Your task to perform on an android device: Open CNN.com Image 0: 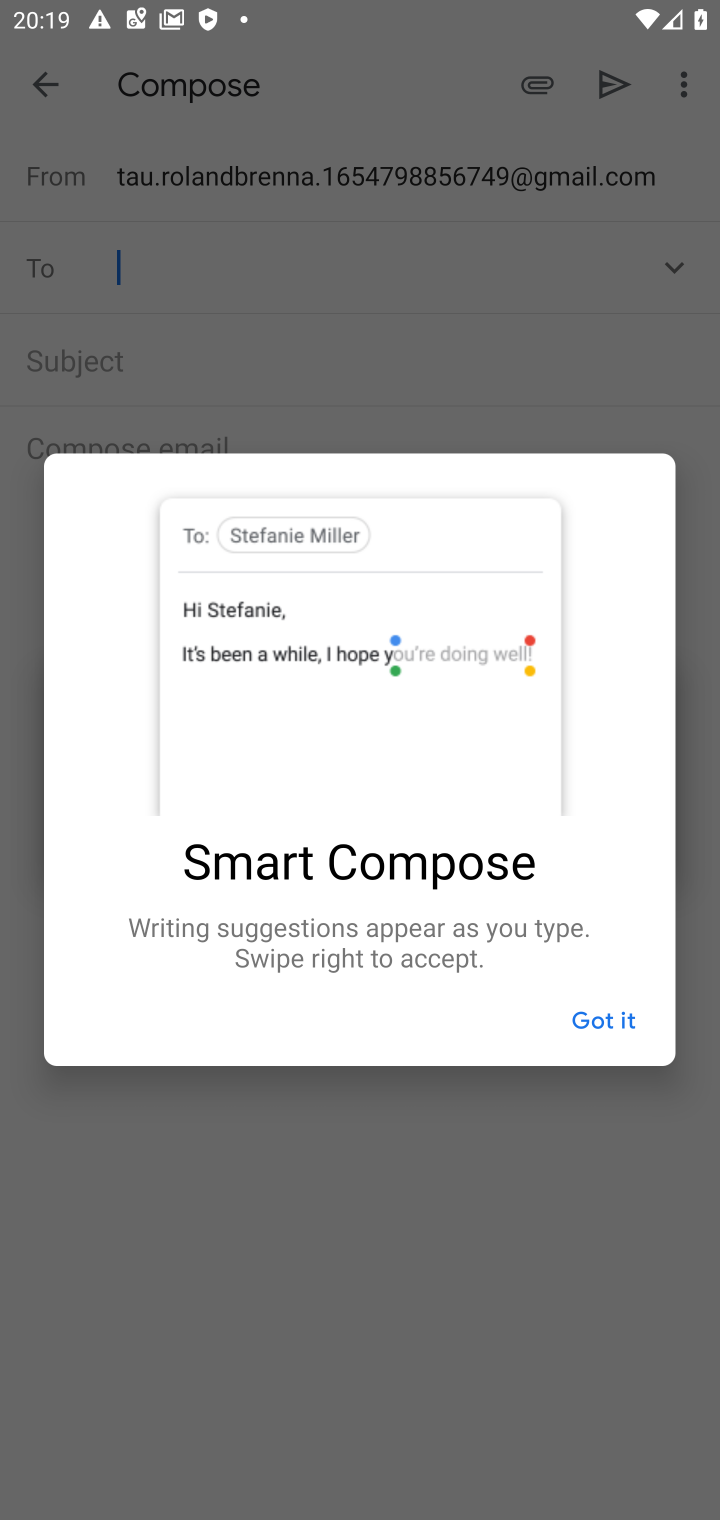
Step 0: press home button
Your task to perform on an android device: Open CNN.com Image 1: 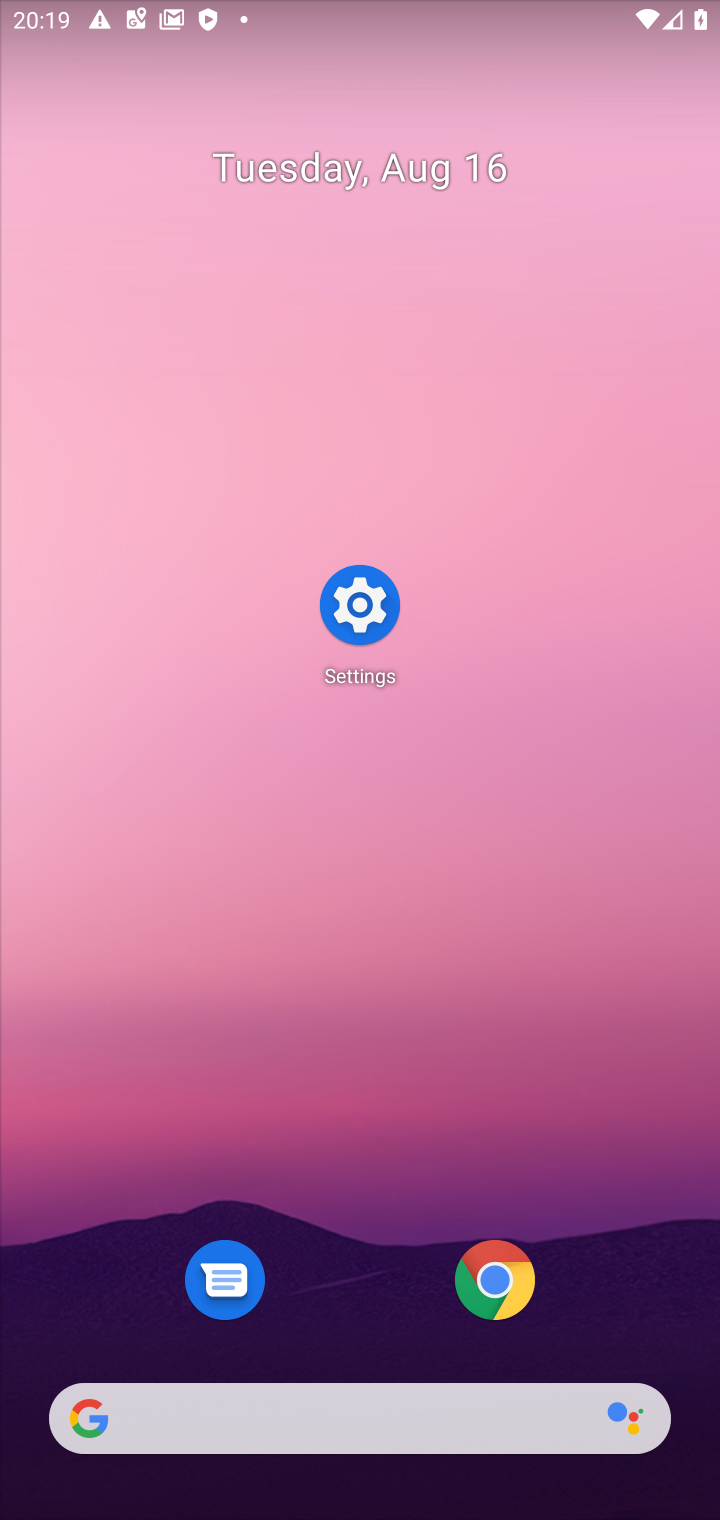
Step 1: click (504, 1287)
Your task to perform on an android device: Open CNN.com Image 2: 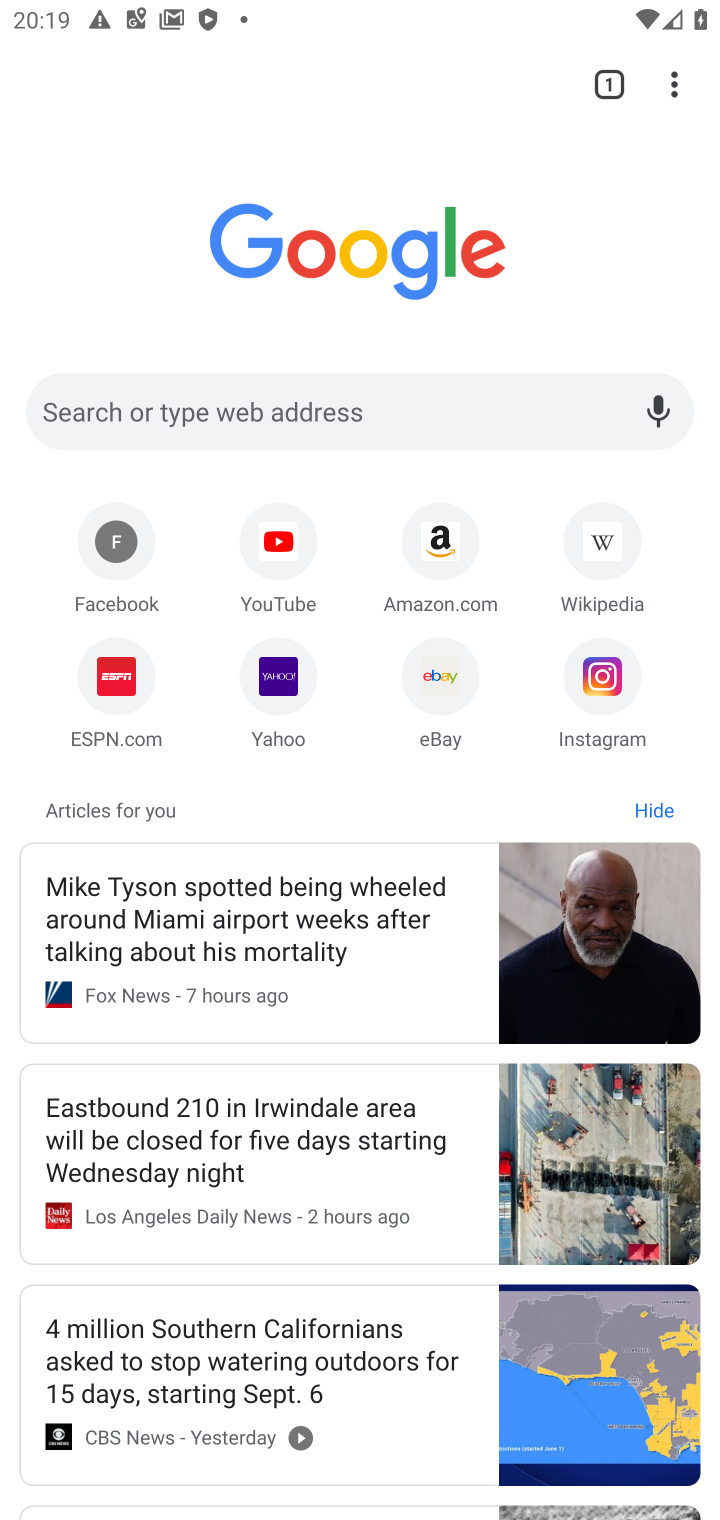
Step 2: click (371, 392)
Your task to perform on an android device: Open CNN.com Image 3: 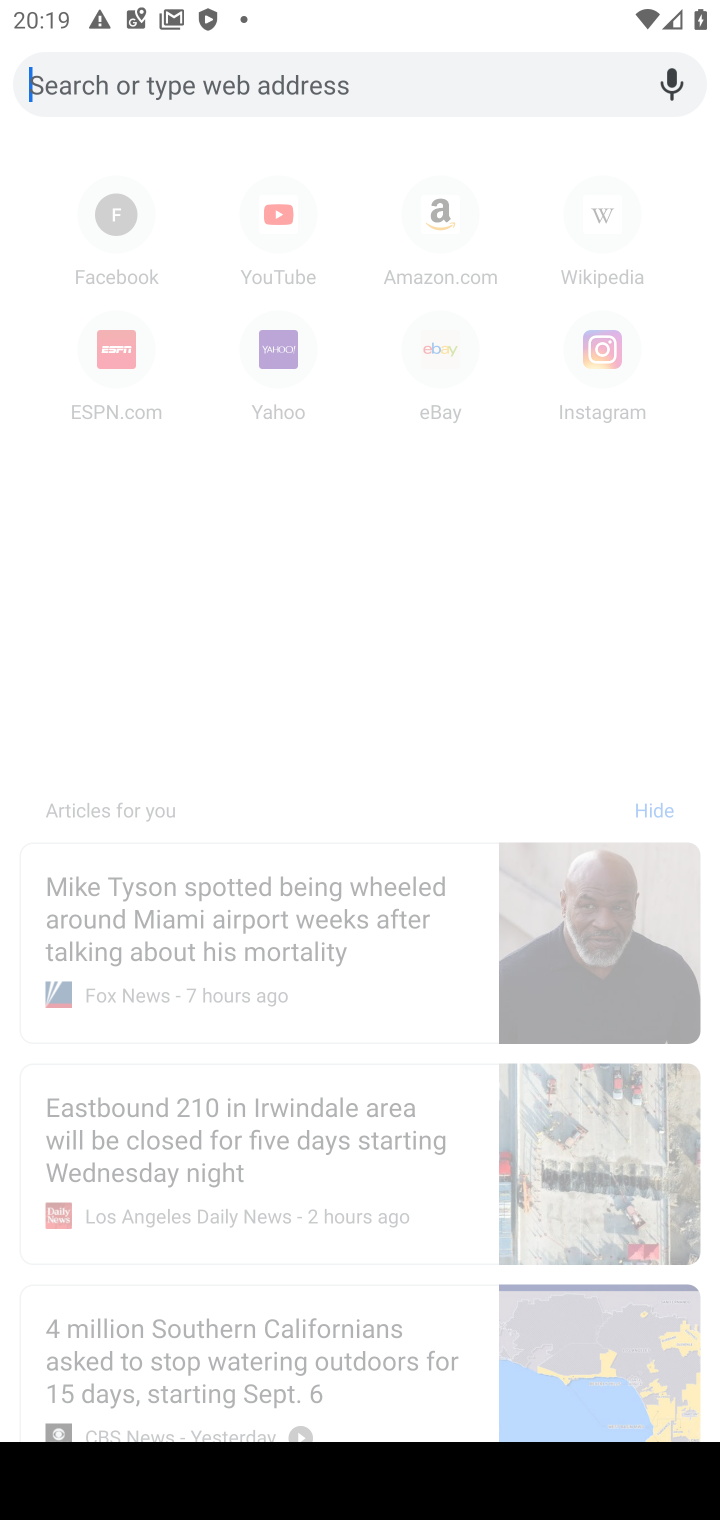
Step 3: type "CNN.com"
Your task to perform on an android device: Open CNN.com Image 4: 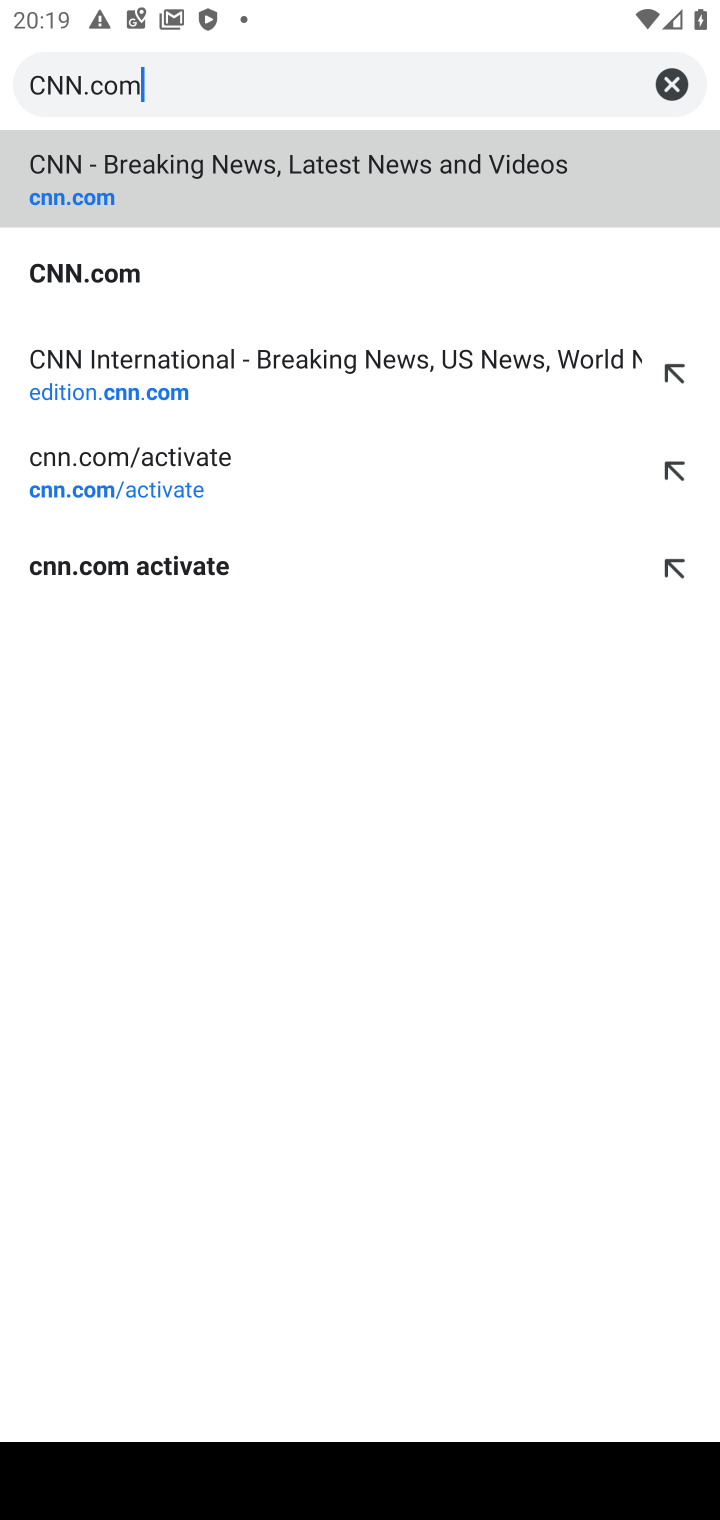
Step 4: click (55, 156)
Your task to perform on an android device: Open CNN.com Image 5: 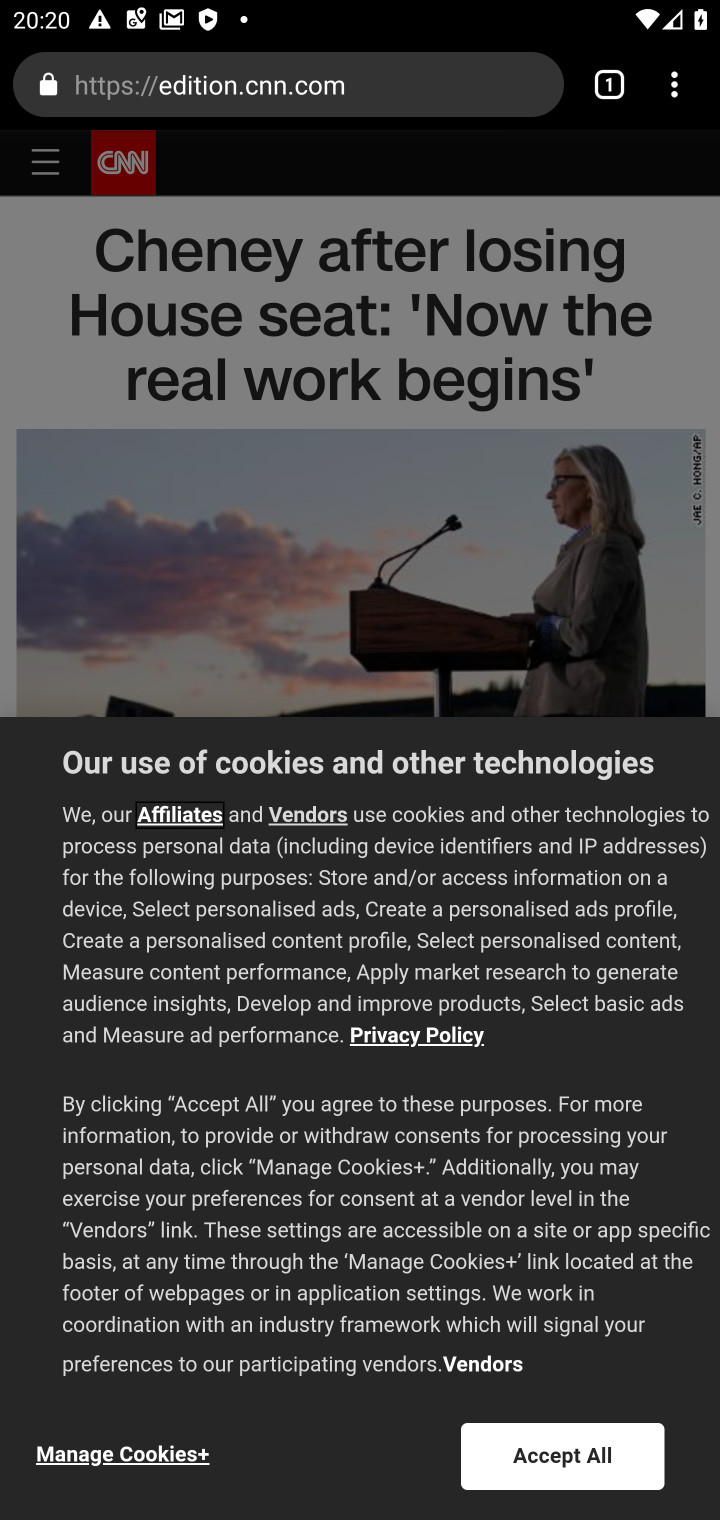
Step 5: task complete